Your task to perform on an android device: Open the calendar and show me this week's events? Image 0: 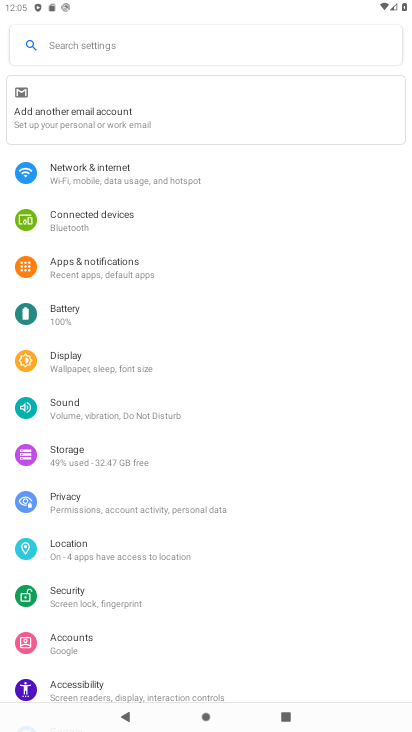
Step 0: press home button
Your task to perform on an android device: Open the calendar and show me this week's events? Image 1: 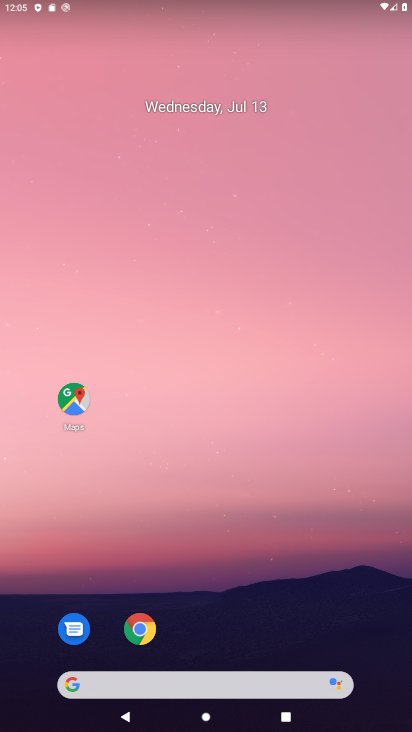
Step 1: drag from (241, 339) to (331, 25)
Your task to perform on an android device: Open the calendar and show me this week's events? Image 2: 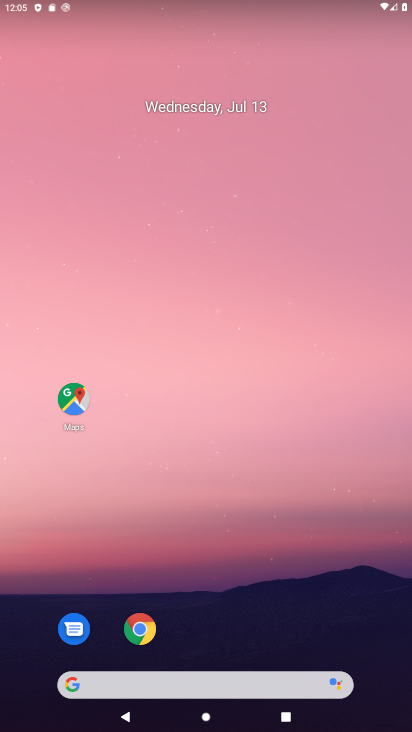
Step 2: drag from (228, 636) to (252, 140)
Your task to perform on an android device: Open the calendar and show me this week's events? Image 3: 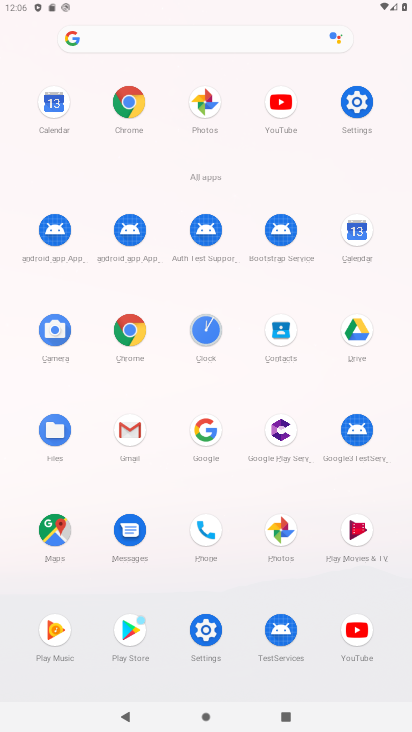
Step 3: click (350, 235)
Your task to perform on an android device: Open the calendar and show me this week's events? Image 4: 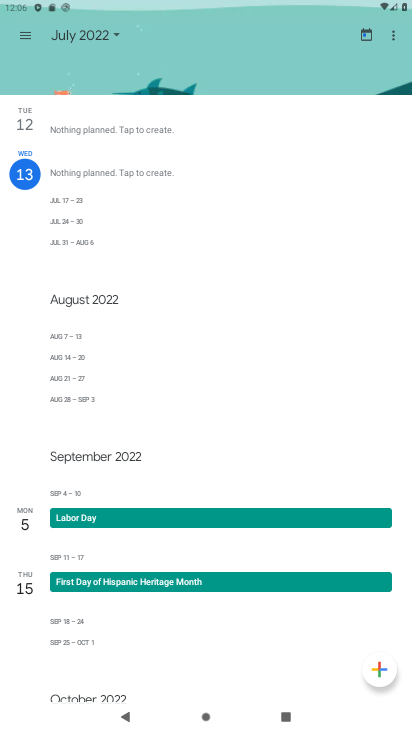
Step 4: task complete